Your task to perform on an android device: empty trash in google photos Image 0: 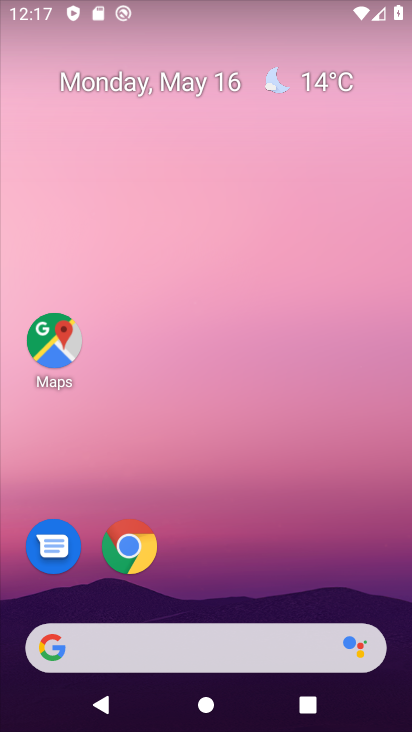
Step 0: drag from (229, 660) to (309, 287)
Your task to perform on an android device: empty trash in google photos Image 1: 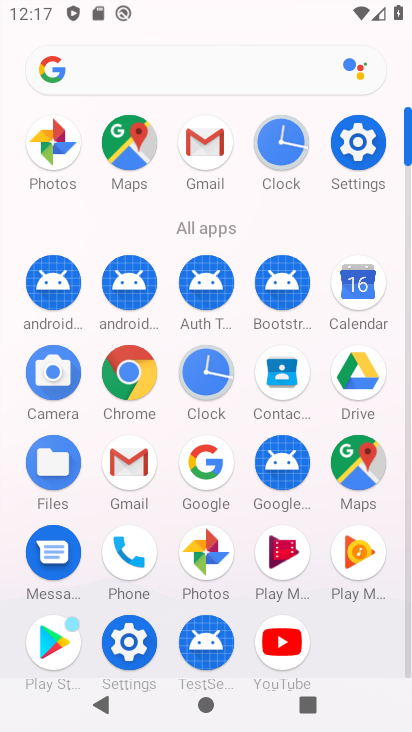
Step 1: click (223, 547)
Your task to perform on an android device: empty trash in google photos Image 2: 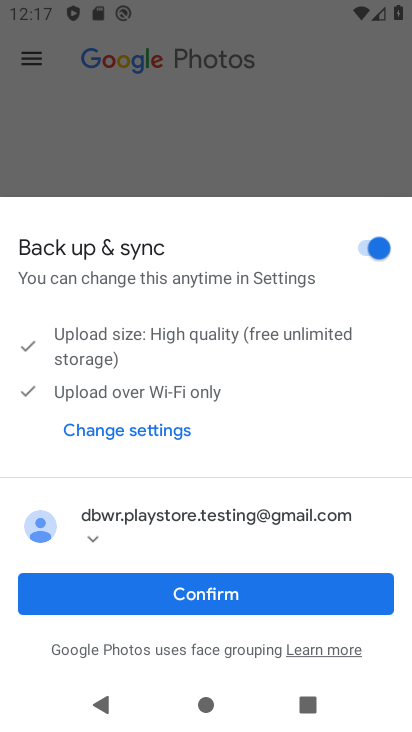
Step 2: click (243, 602)
Your task to perform on an android device: empty trash in google photos Image 3: 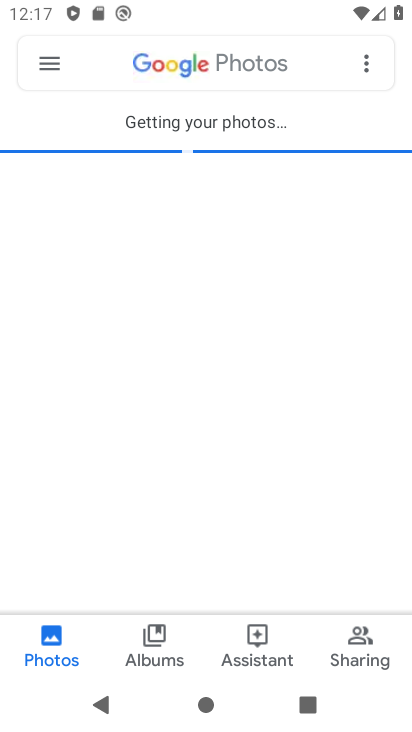
Step 3: click (41, 65)
Your task to perform on an android device: empty trash in google photos Image 4: 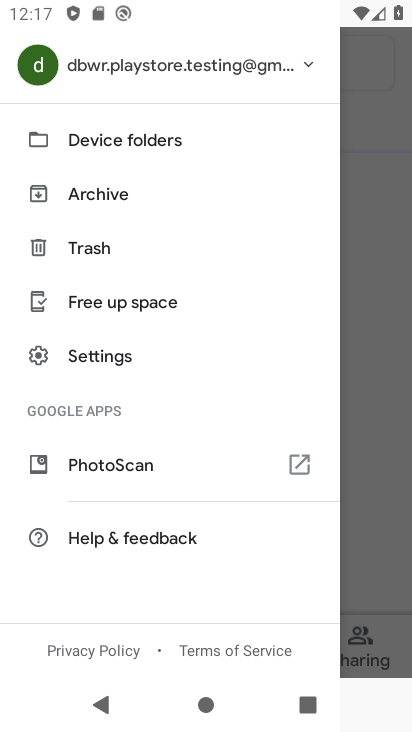
Step 4: click (80, 245)
Your task to perform on an android device: empty trash in google photos Image 5: 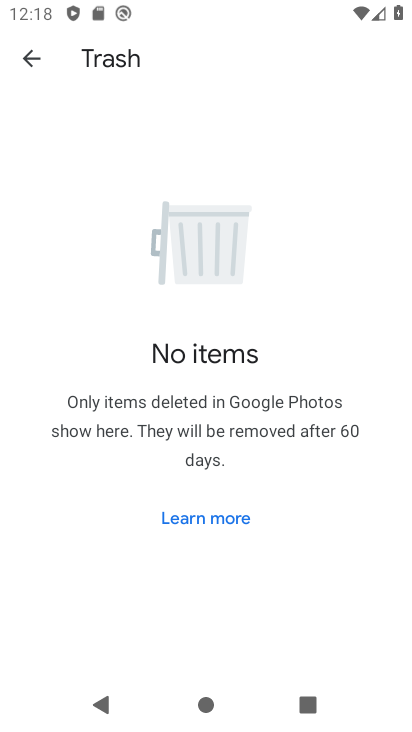
Step 5: task complete